Your task to perform on an android device: Open ESPN.com Image 0: 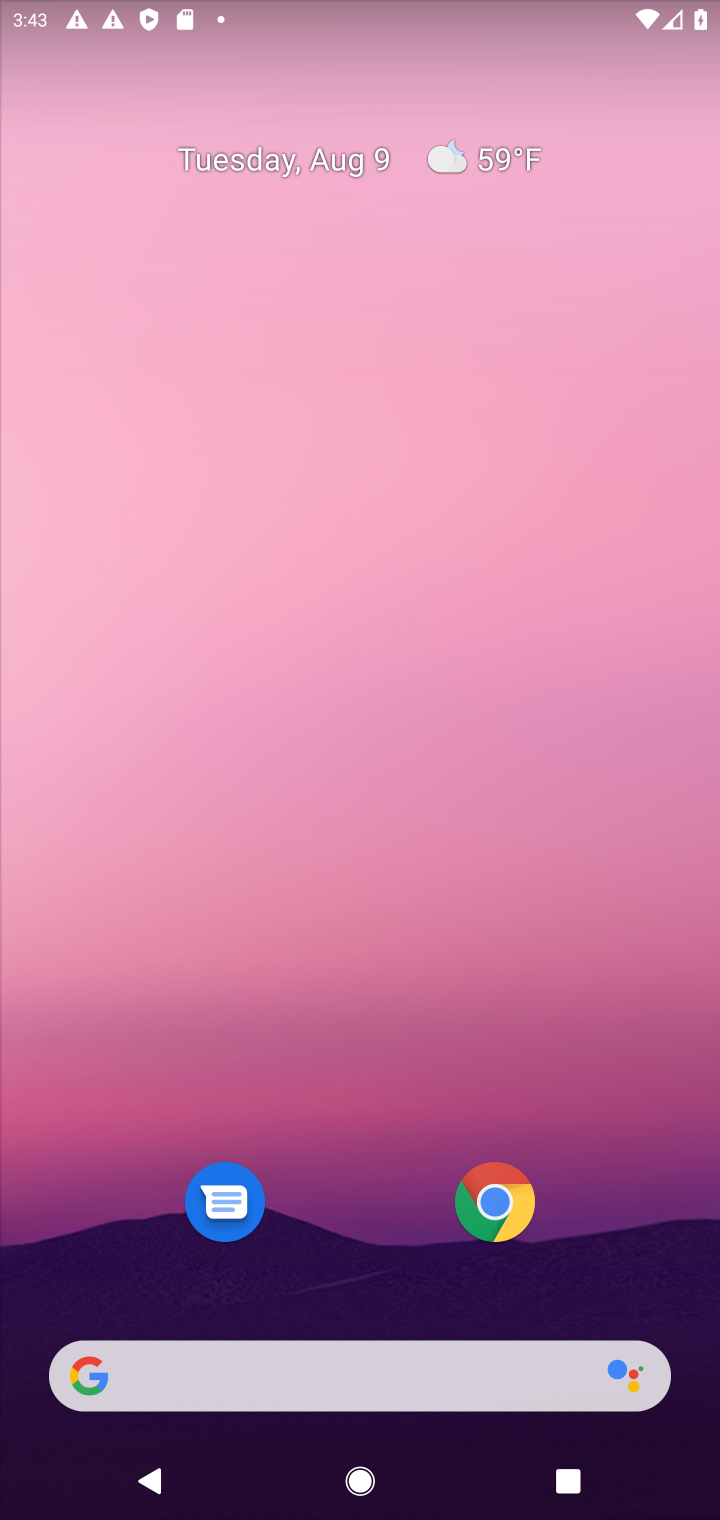
Step 0: drag from (376, 1292) to (370, 157)
Your task to perform on an android device: Open ESPN.com Image 1: 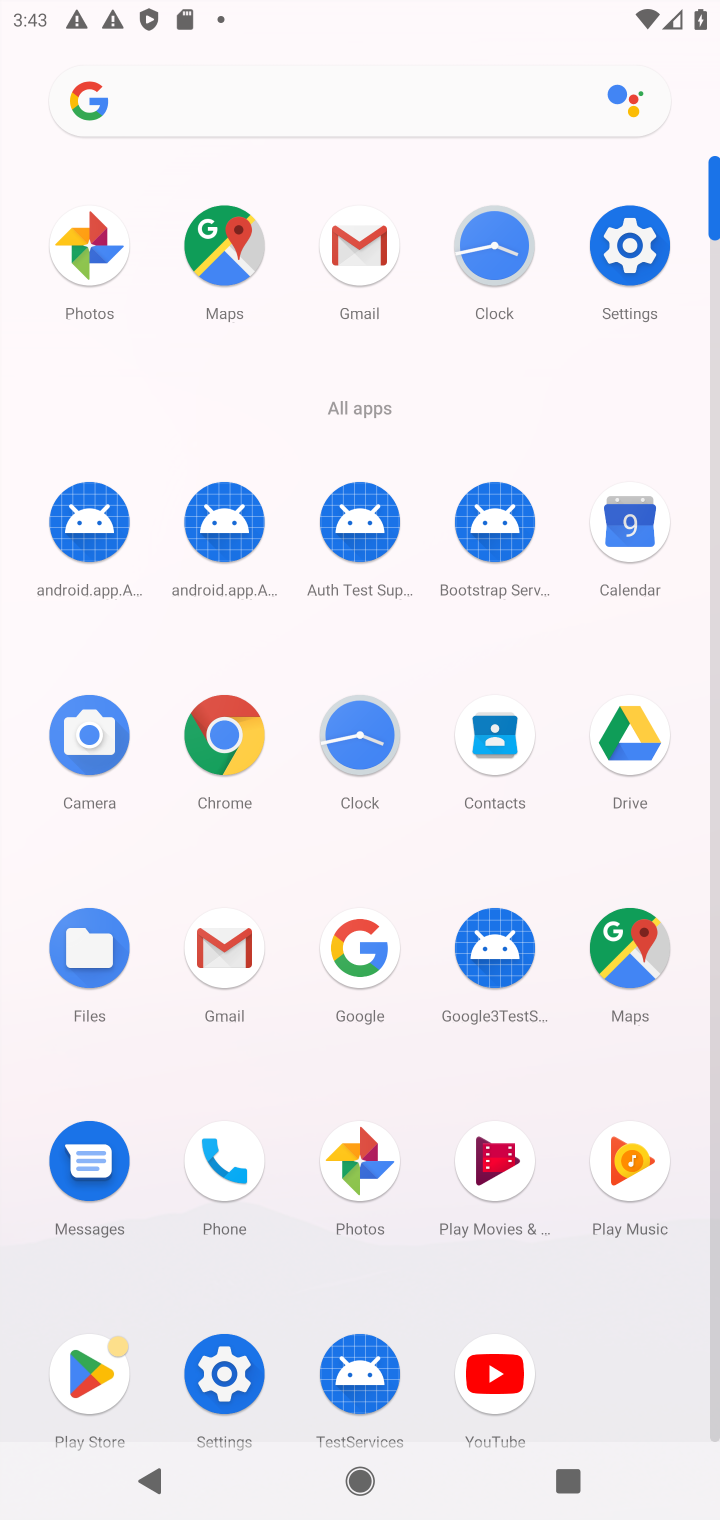
Step 1: click (217, 714)
Your task to perform on an android device: Open ESPN.com Image 2: 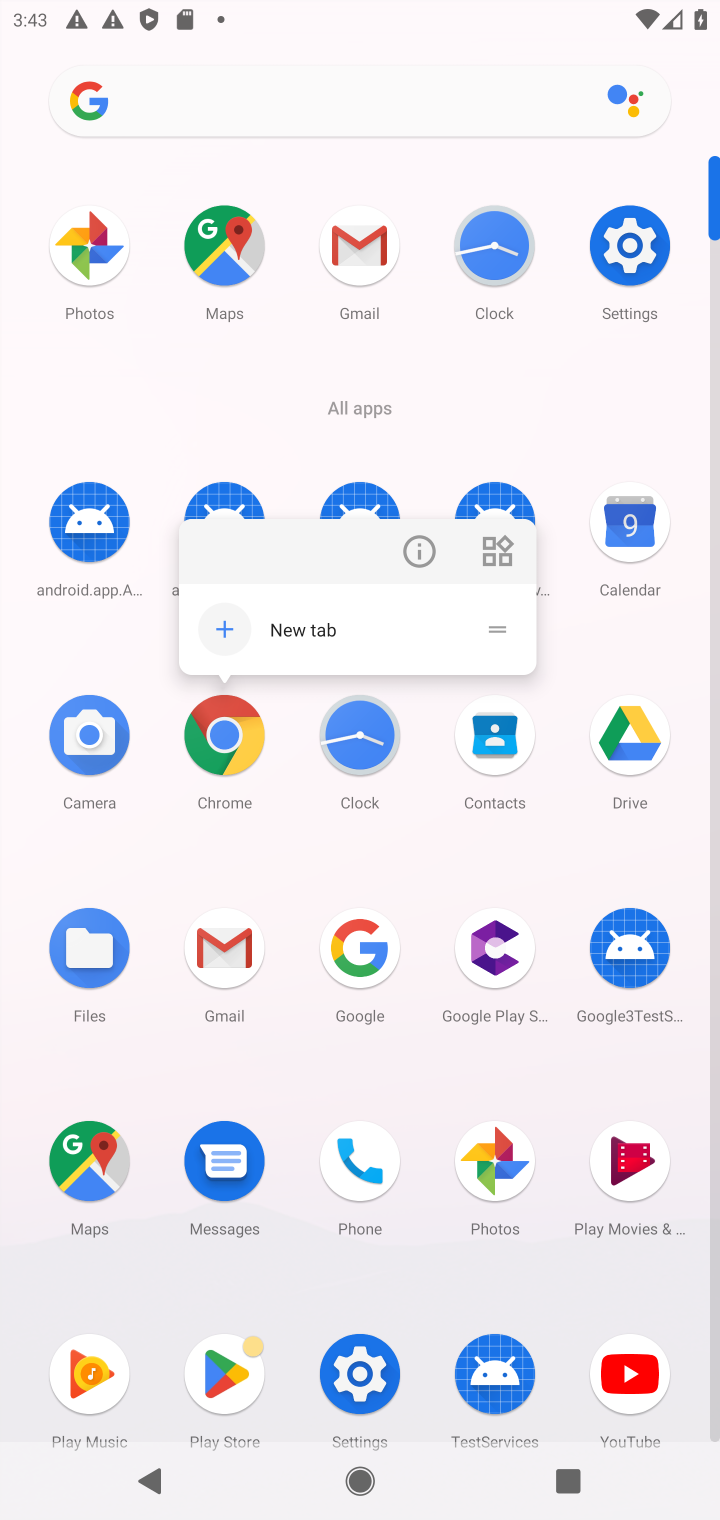
Step 2: click (219, 729)
Your task to perform on an android device: Open ESPN.com Image 3: 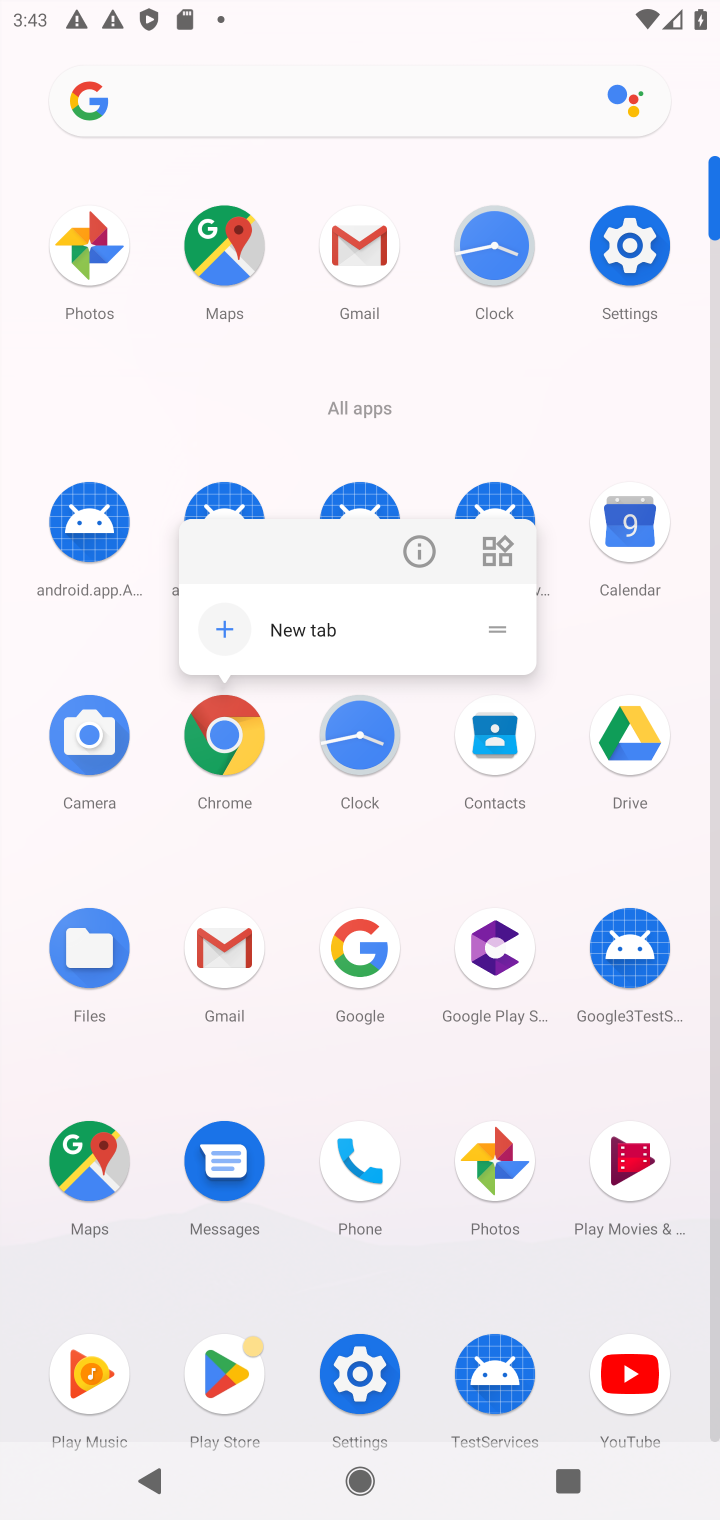
Step 3: click (220, 731)
Your task to perform on an android device: Open ESPN.com Image 4: 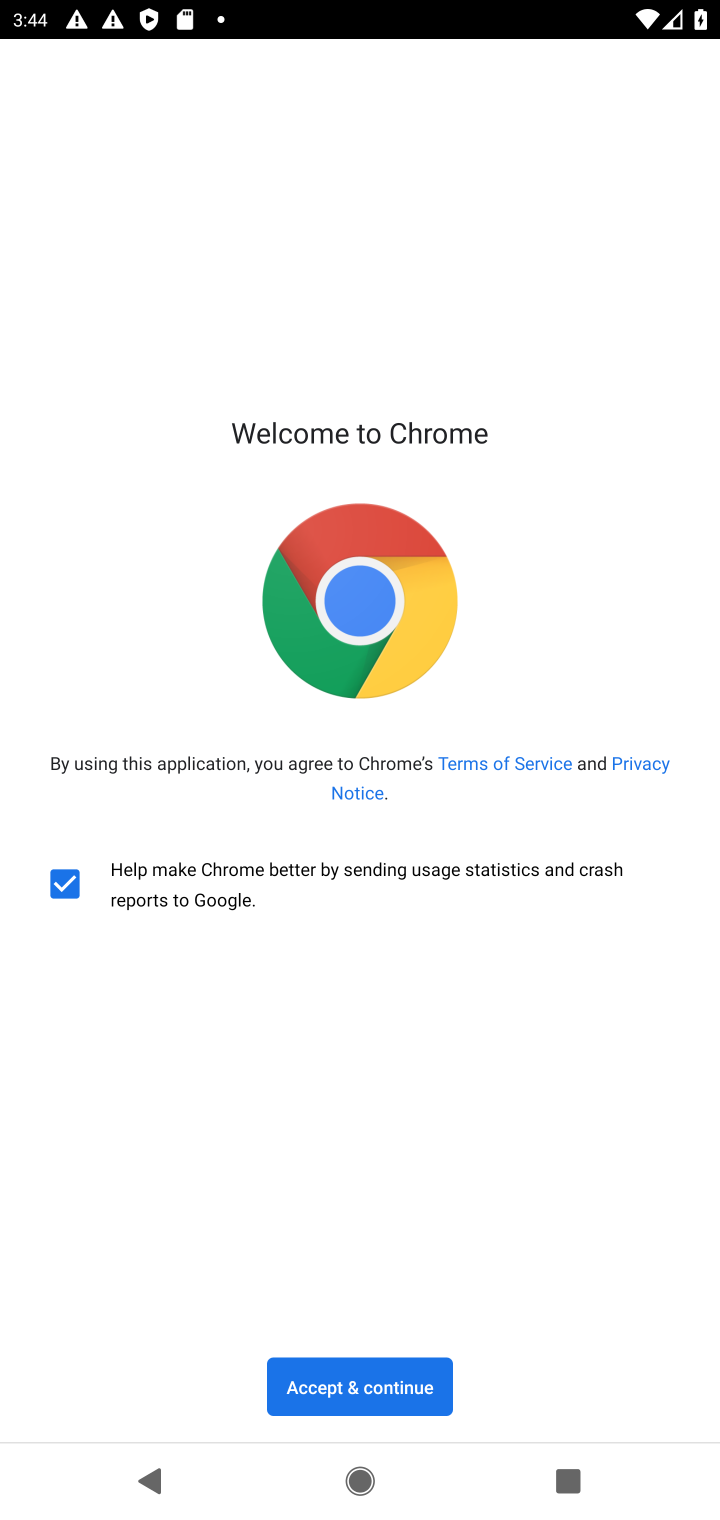
Step 4: click (351, 1381)
Your task to perform on an android device: Open ESPN.com Image 5: 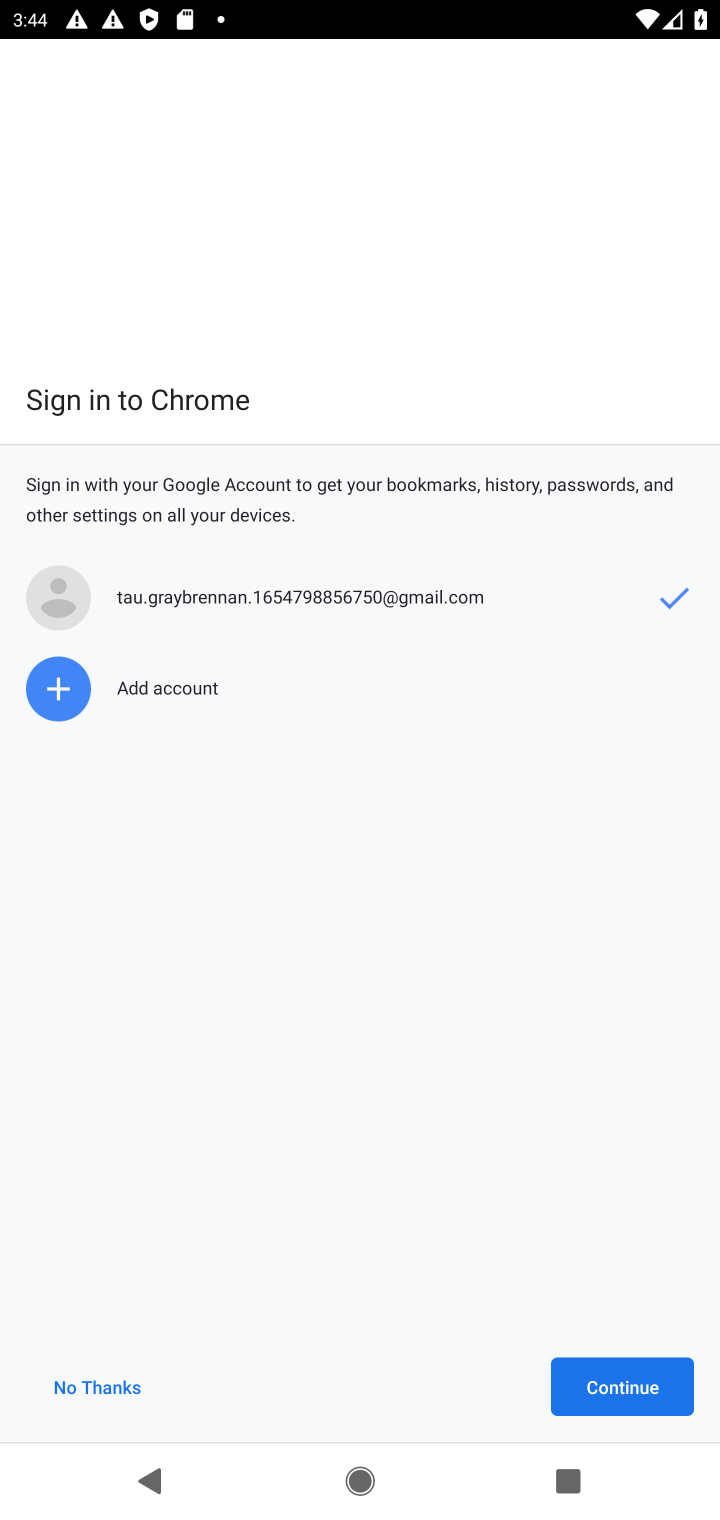
Step 5: click (604, 1387)
Your task to perform on an android device: Open ESPN.com Image 6: 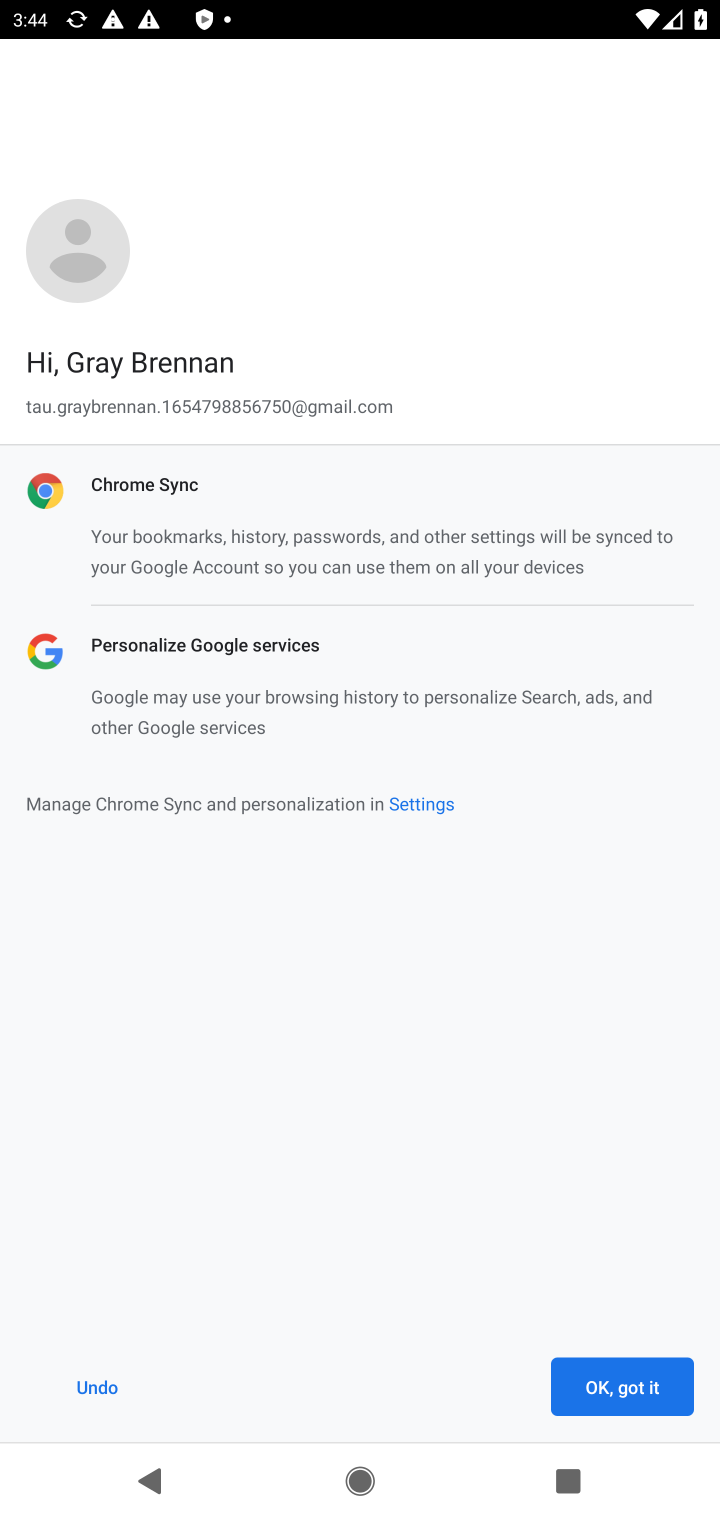
Step 6: click (613, 1387)
Your task to perform on an android device: Open ESPN.com Image 7: 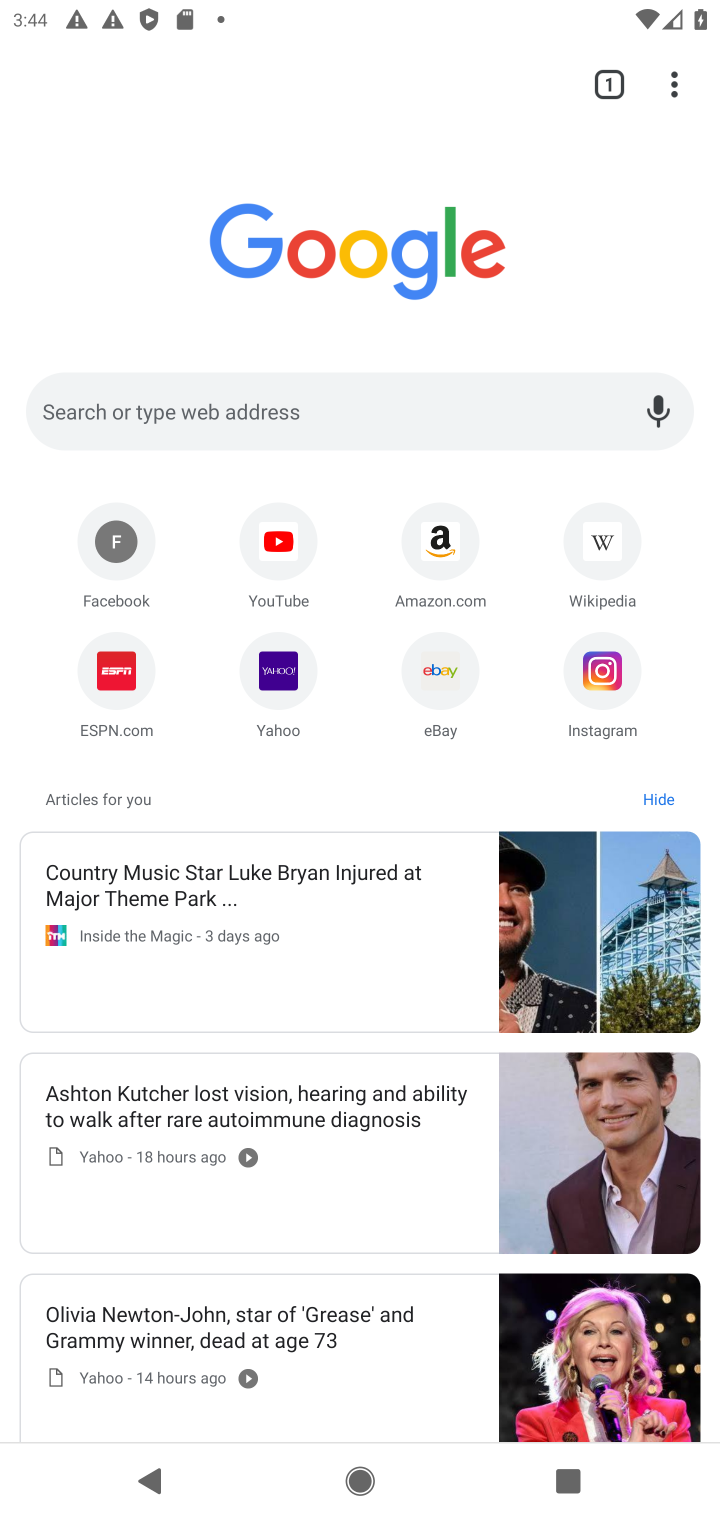
Step 7: click (104, 668)
Your task to perform on an android device: Open ESPN.com Image 8: 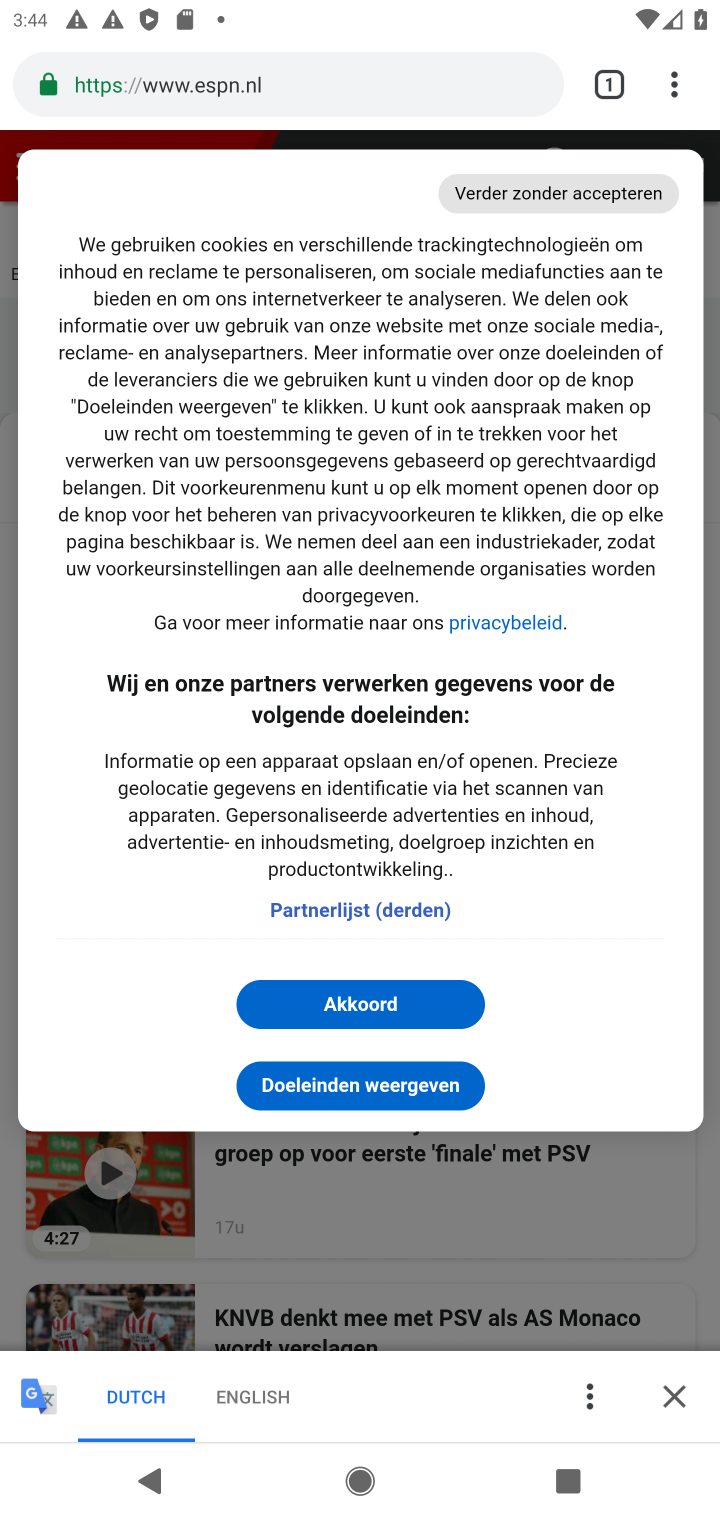
Step 8: click (359, 994)
Your task to perform on an android device: Open ESPN.com Image 9: 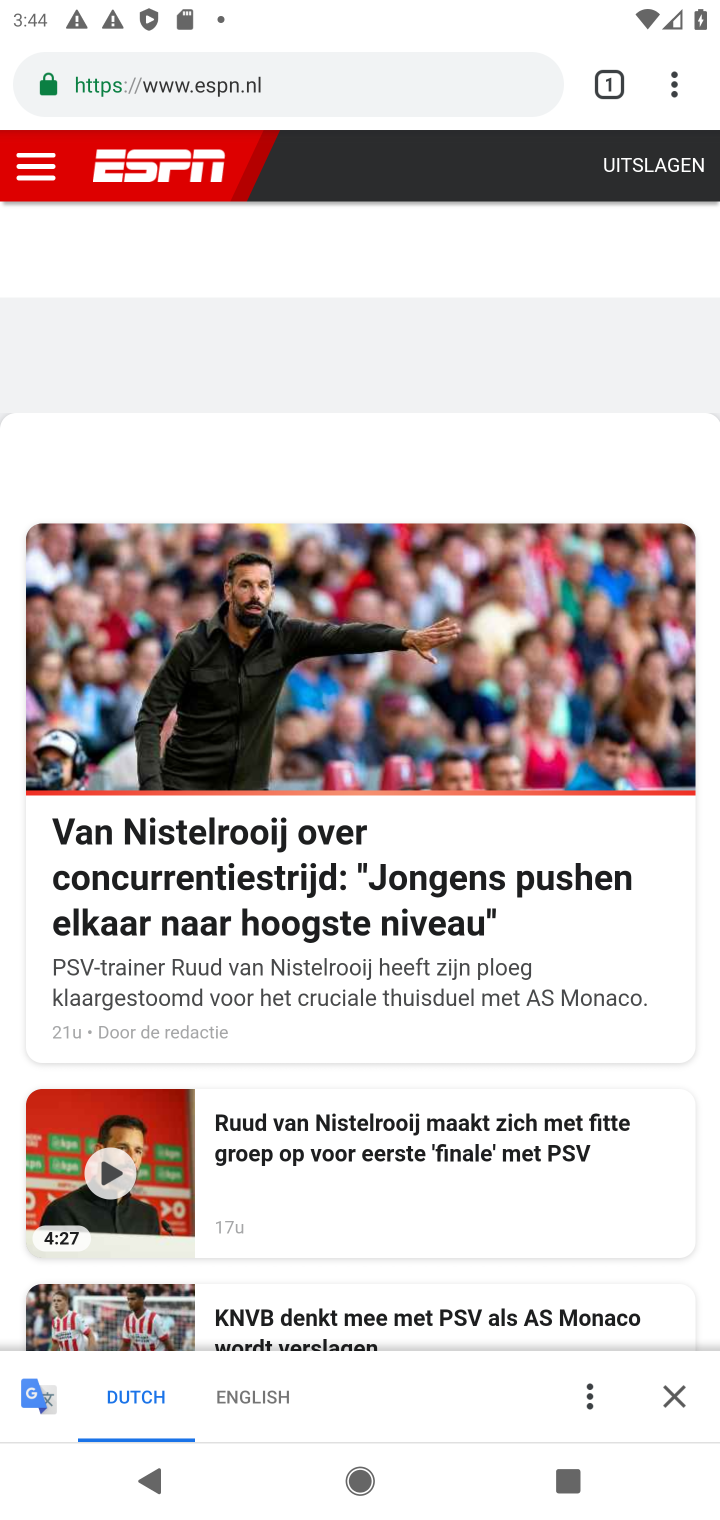
Step 9: task complete